Your task to perform on an android device: move an email to a new category in the gmail app Image 0: 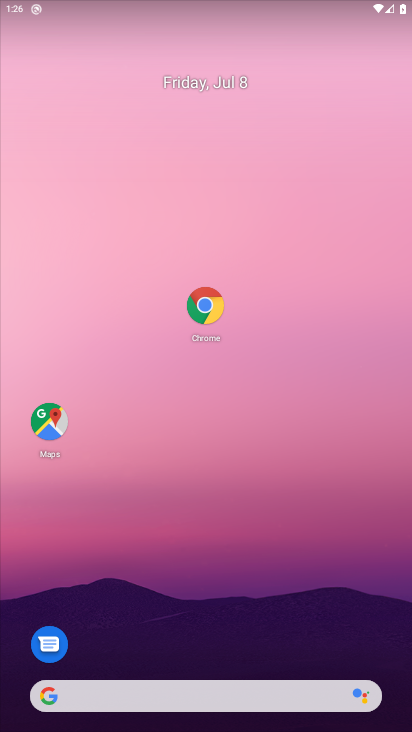
Step 0: drag from (184, 664) to (182, 296)
Your task to perform on an android device: move an email to a new category in the gmail app Image 1: 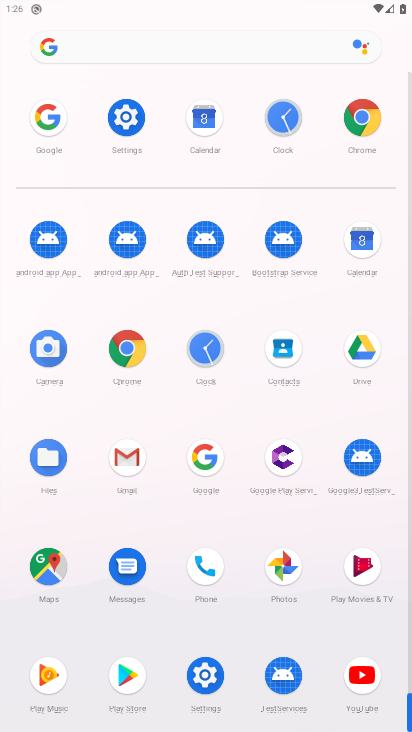
Step 1: click (124, 470)
Your task to perform on an android device: move an email to a new category in the gmail app Image 2: 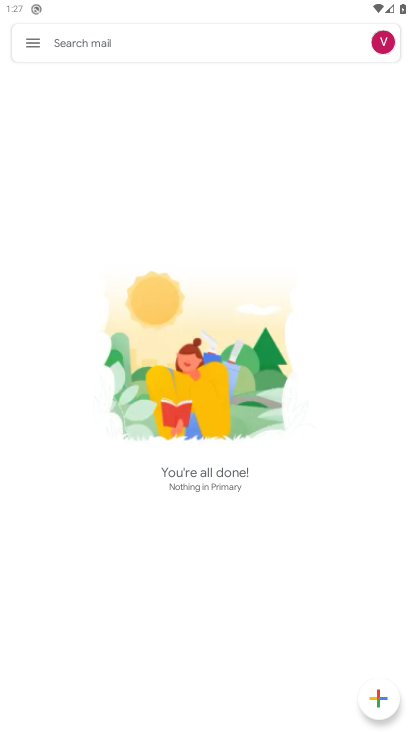
Step 2: task complete